Your task to perform on an android device: toggle notification dots Image 0: 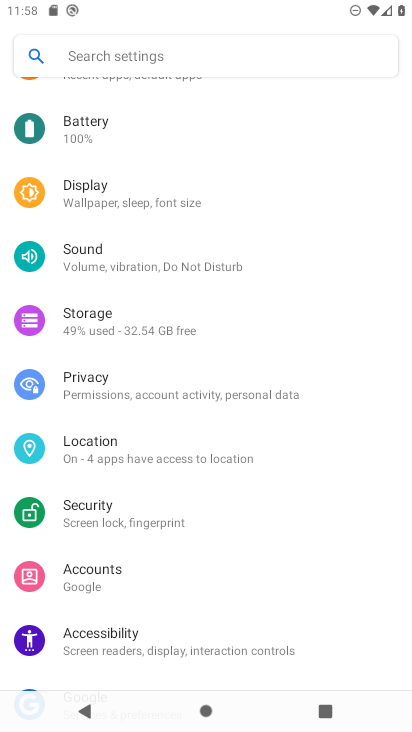
Step 0: press home button
Your task to perform on an android device: toggle notification dots Image 1: 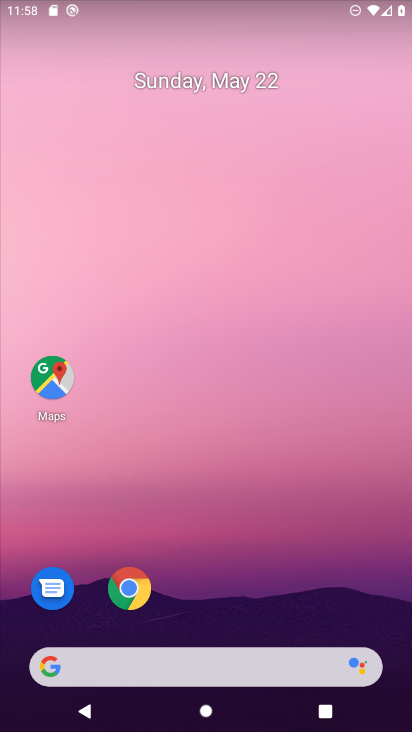
Step 1: click (243, 164)
Your task to perform on an android device: toggle notification dots Image 2: 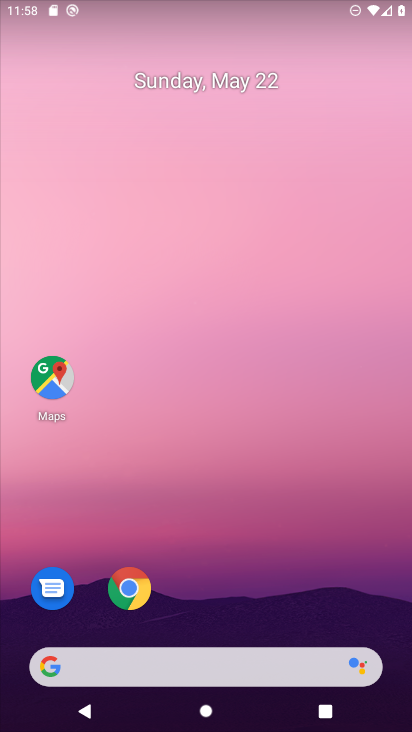
Step 2: drag from (225, 650) to (258, 47)
Your task to perform on an android device: toggle notification dots Image 3: 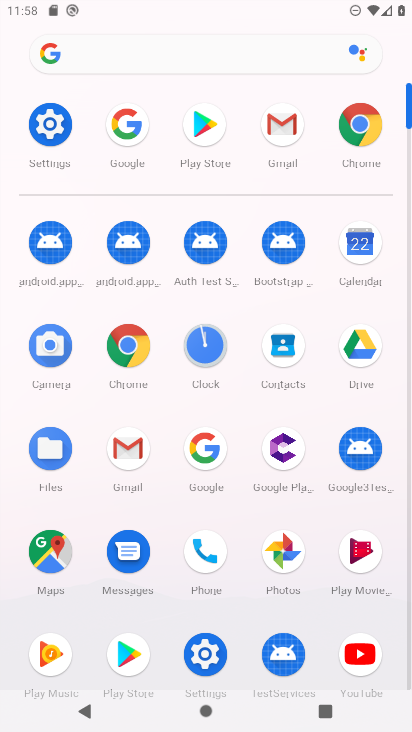
Step 3: click (48, 128)
Your task to perform on an android device: toggle notification dots Image 4: 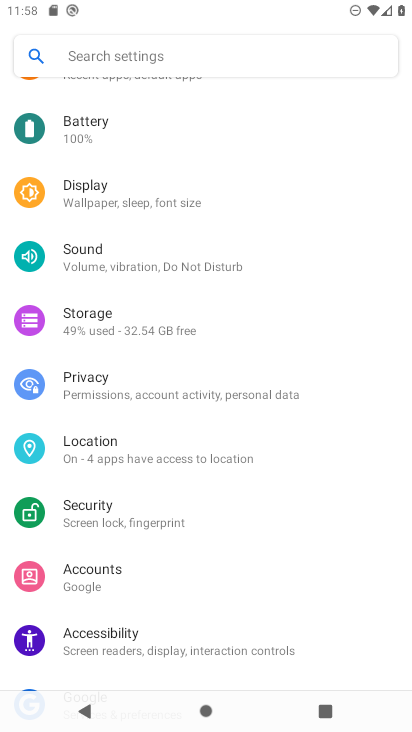
Step 4: drag from (173, 153) to (197, 407)
Your task to perform on an android device: toggle notification dots Image 5: 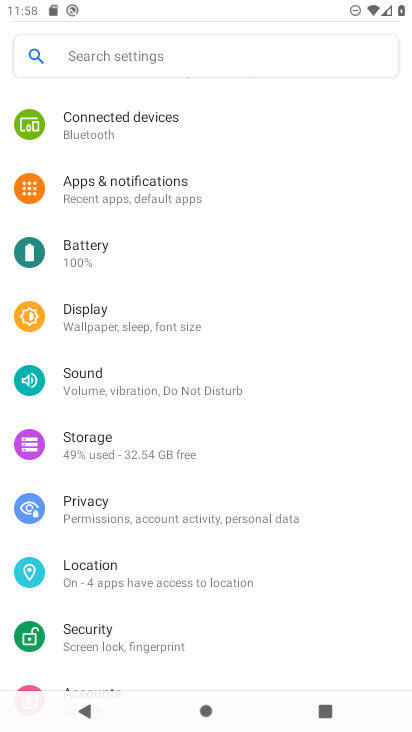
Step 5: click (172, 188)
Your task to perform on an android device: toggle notification dots Image 6: 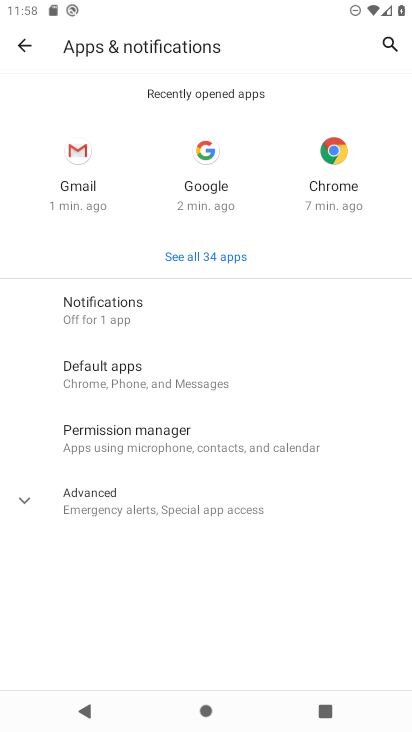
Step 6: click (134, 314)
Your task to perform on an android device: toggle notification dots Image 7: 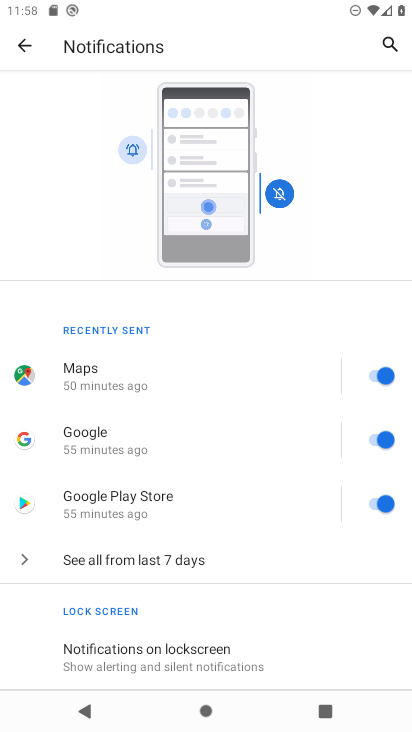
Step 7: drag from (237, 637) to (268, 129)
Your task to perform on an android device: toggle notification dots Image 8: 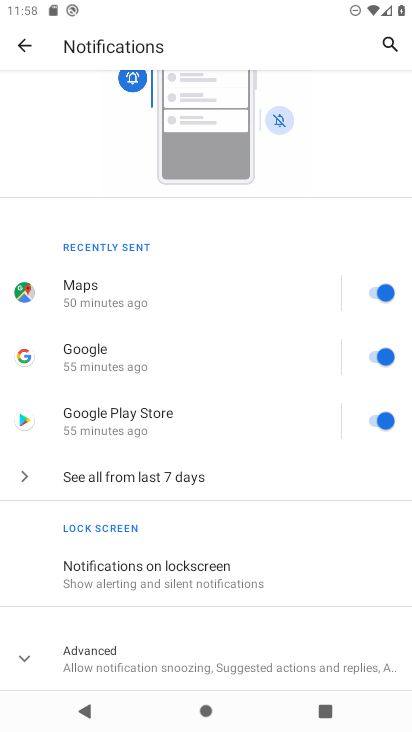
Step 8: click (133, 669)
Your task to perform on an android device: toggle notification dots Image 9: 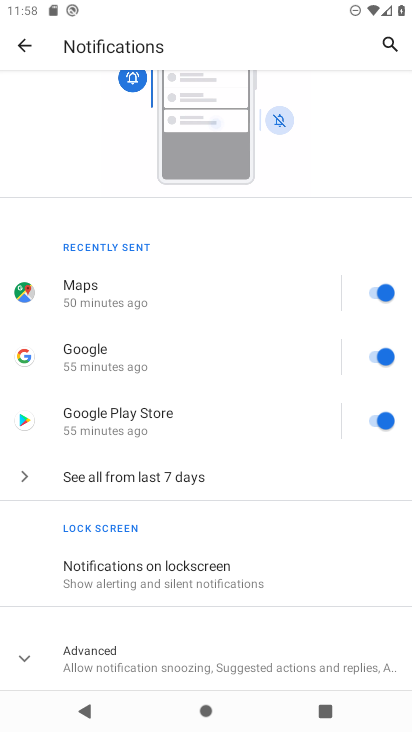
Step 9: click (133, 669)
Your task to perform on an android device: toggle notification dots Image 10: 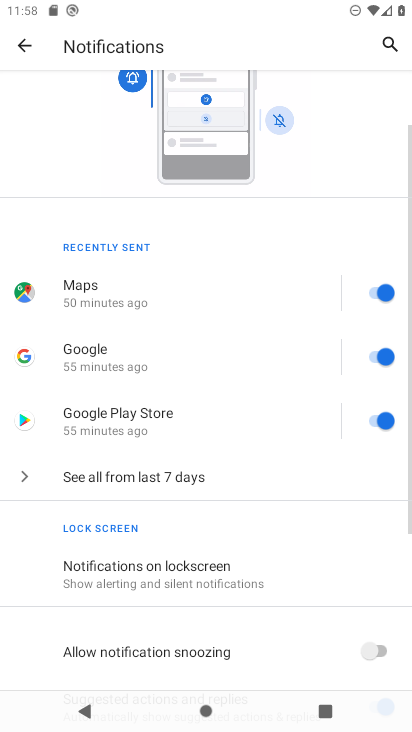
Step 10: drag from (155, 668) to (140, 115)
Your task to perform on an android device: toggle notification dots Image 11: 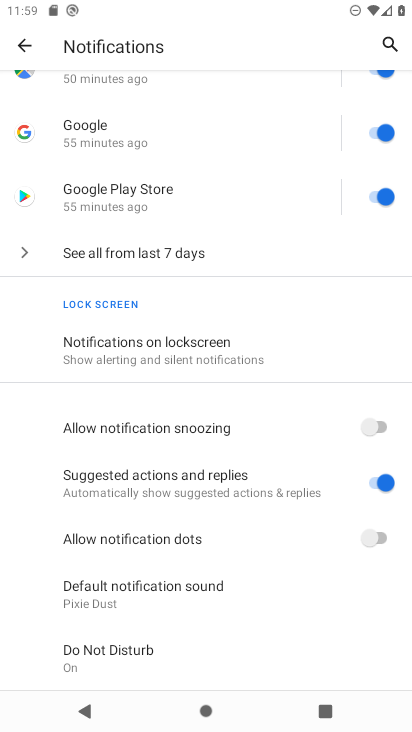
Step 11: click (382, 538)
Your task to perform on an android device: toggle notification dots Image 12: 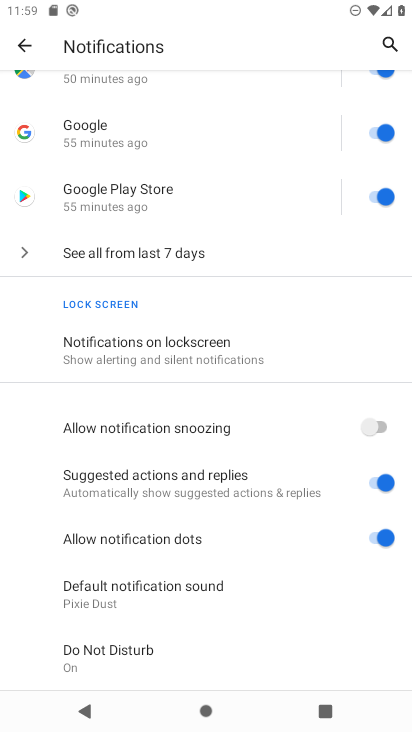
Step 12: task complete